Your task to perform on an android device: check android version Image 0: 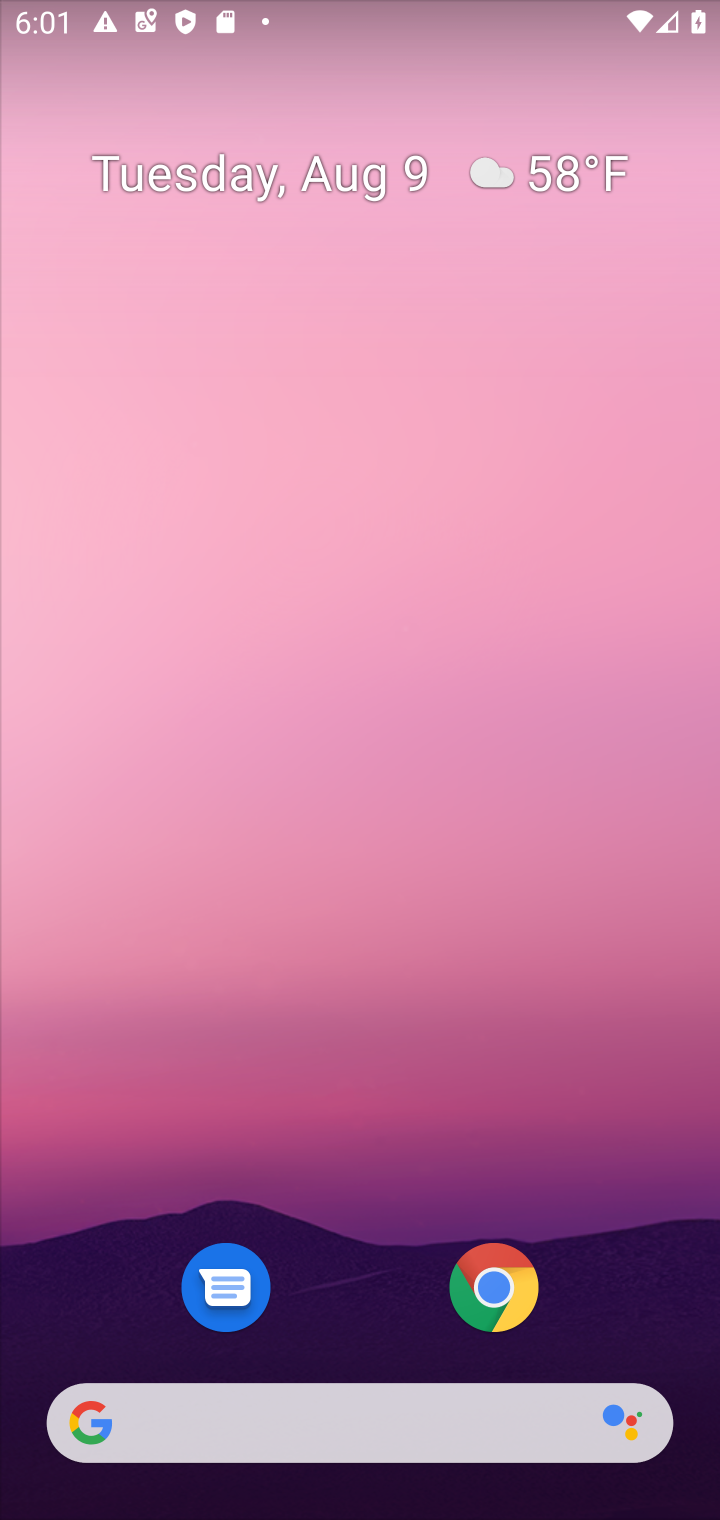
Step 0: click (376, 1448)
Your task to perform on an android device: check android version Image 1: 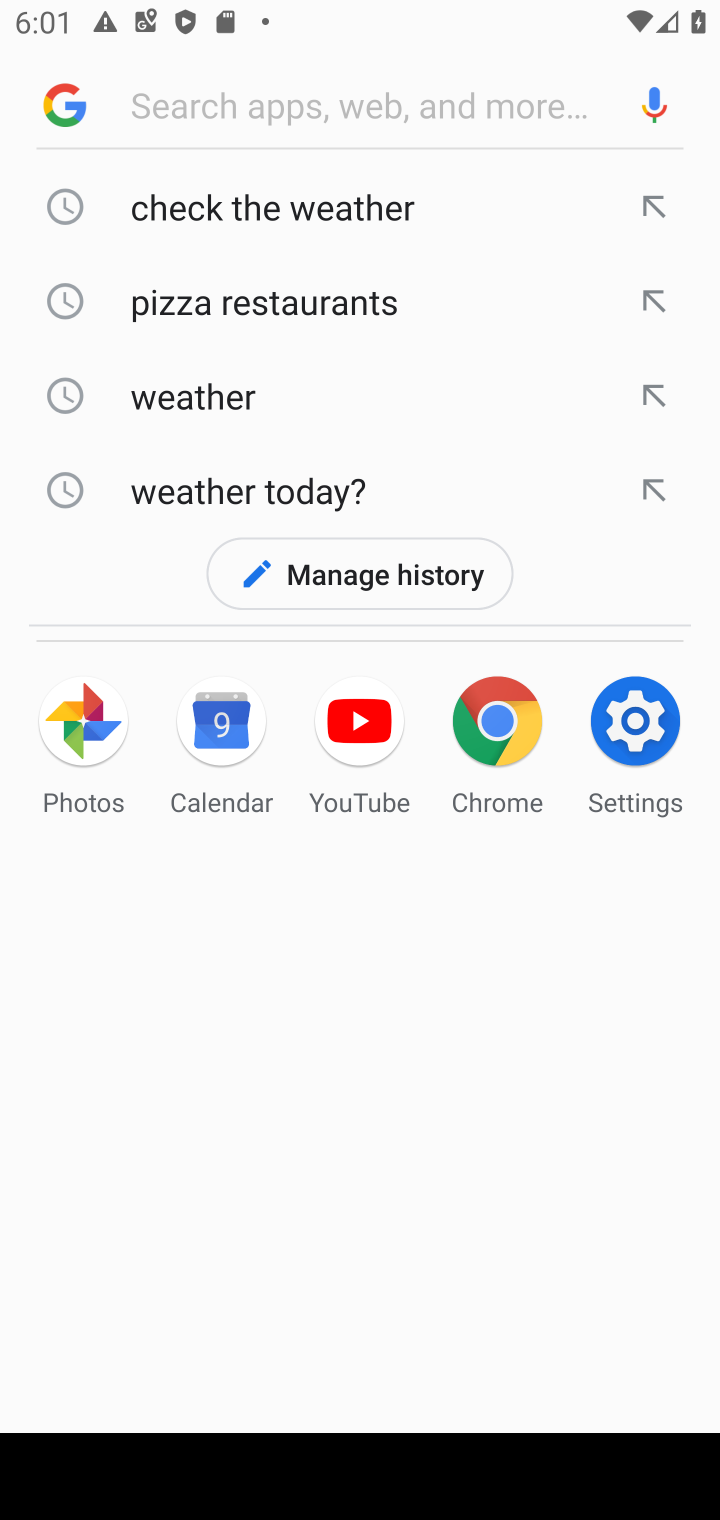
Step 1: click (61, 102)
Your task to perform on an android device: check android version Image 2: 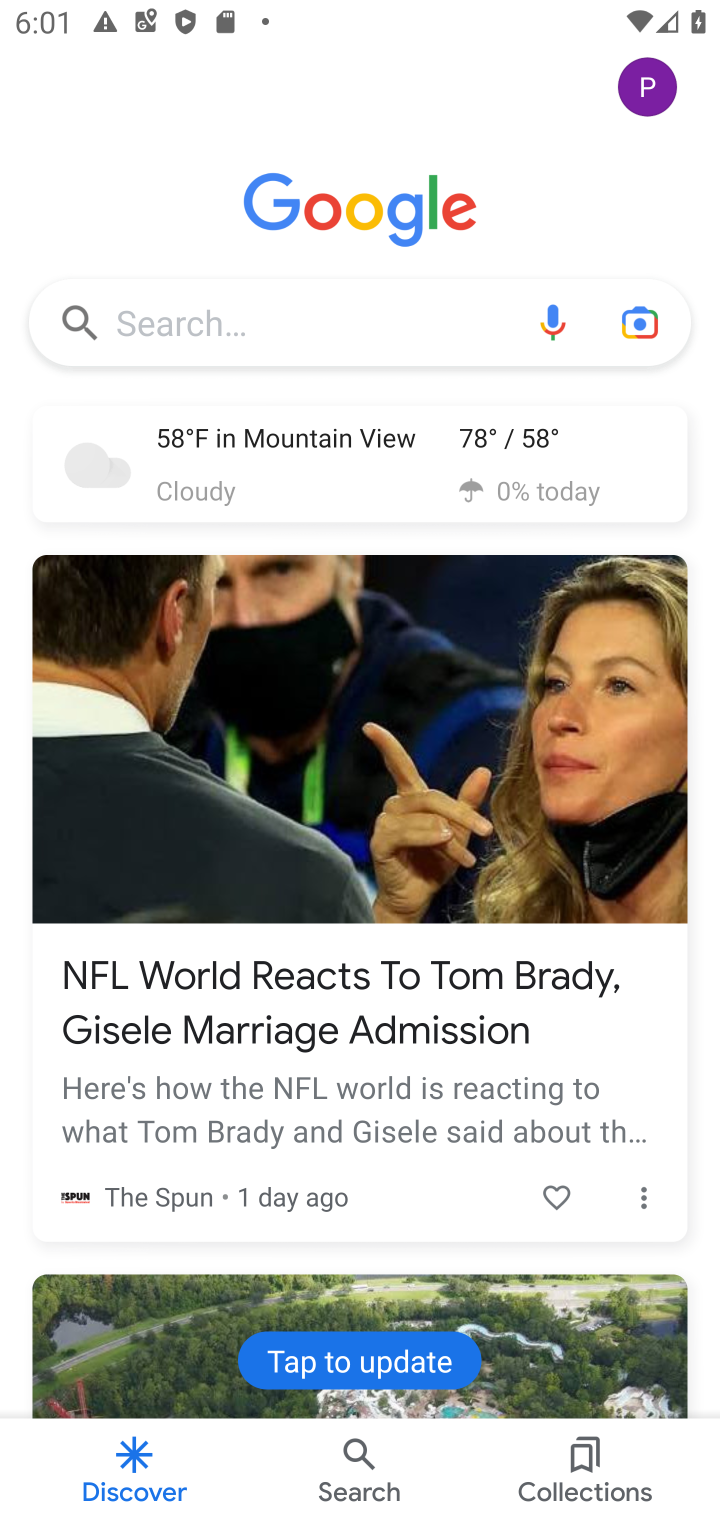
Step 2: click (657, 101)
Your task to perform on an android device: check android version Image 3: 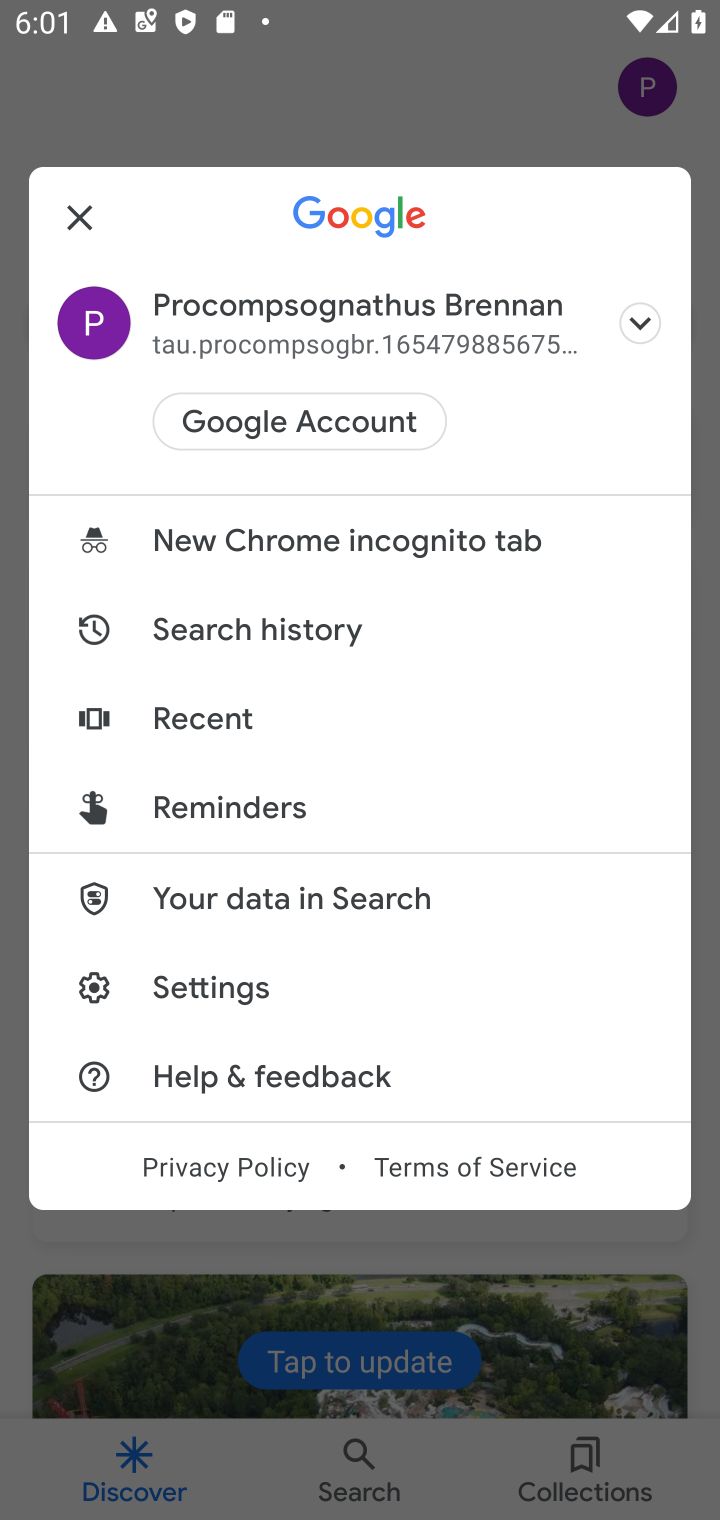
Step 3: click (230, 998)
Your task to perform on an android device: check android version Image 4: 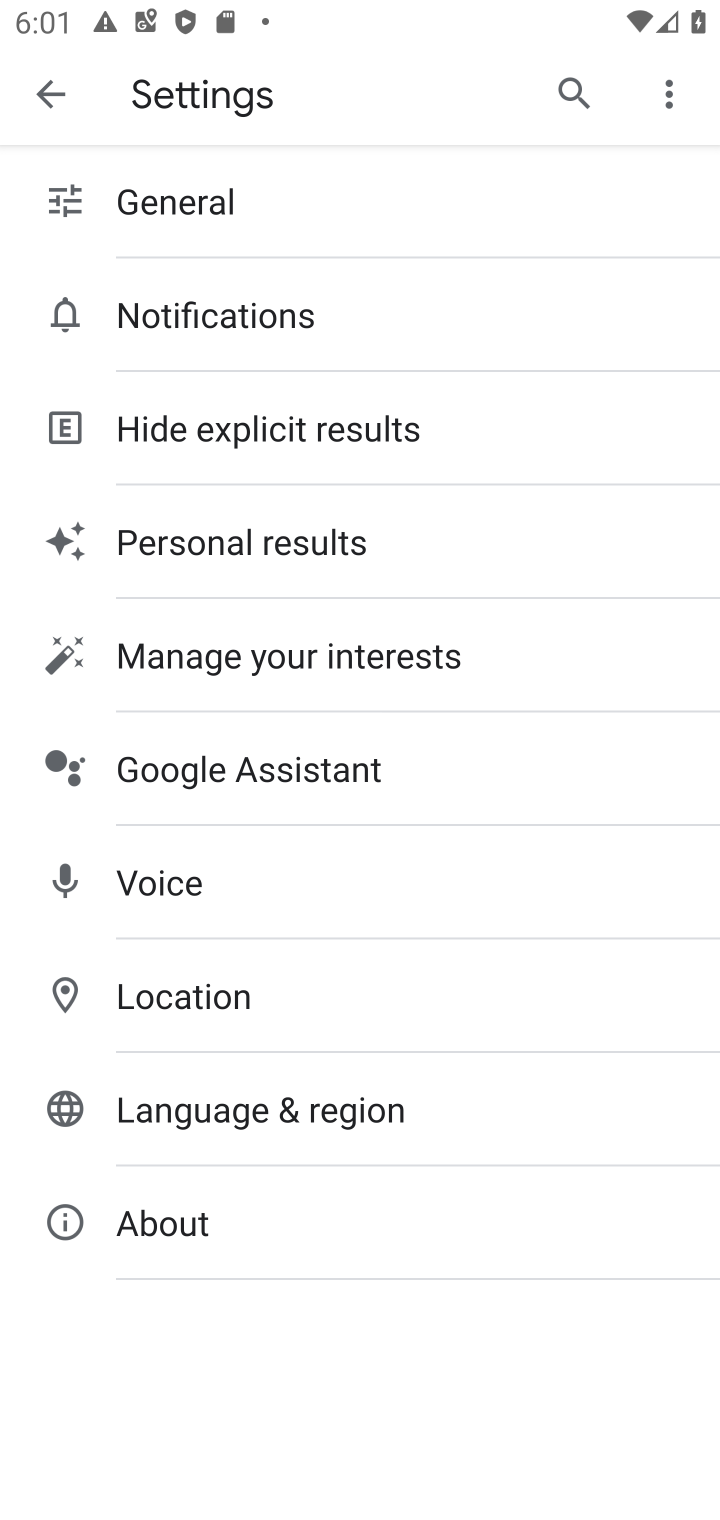
Step 4: click (233, 1204)
Your task to perform on an android device: check android version Image 5: 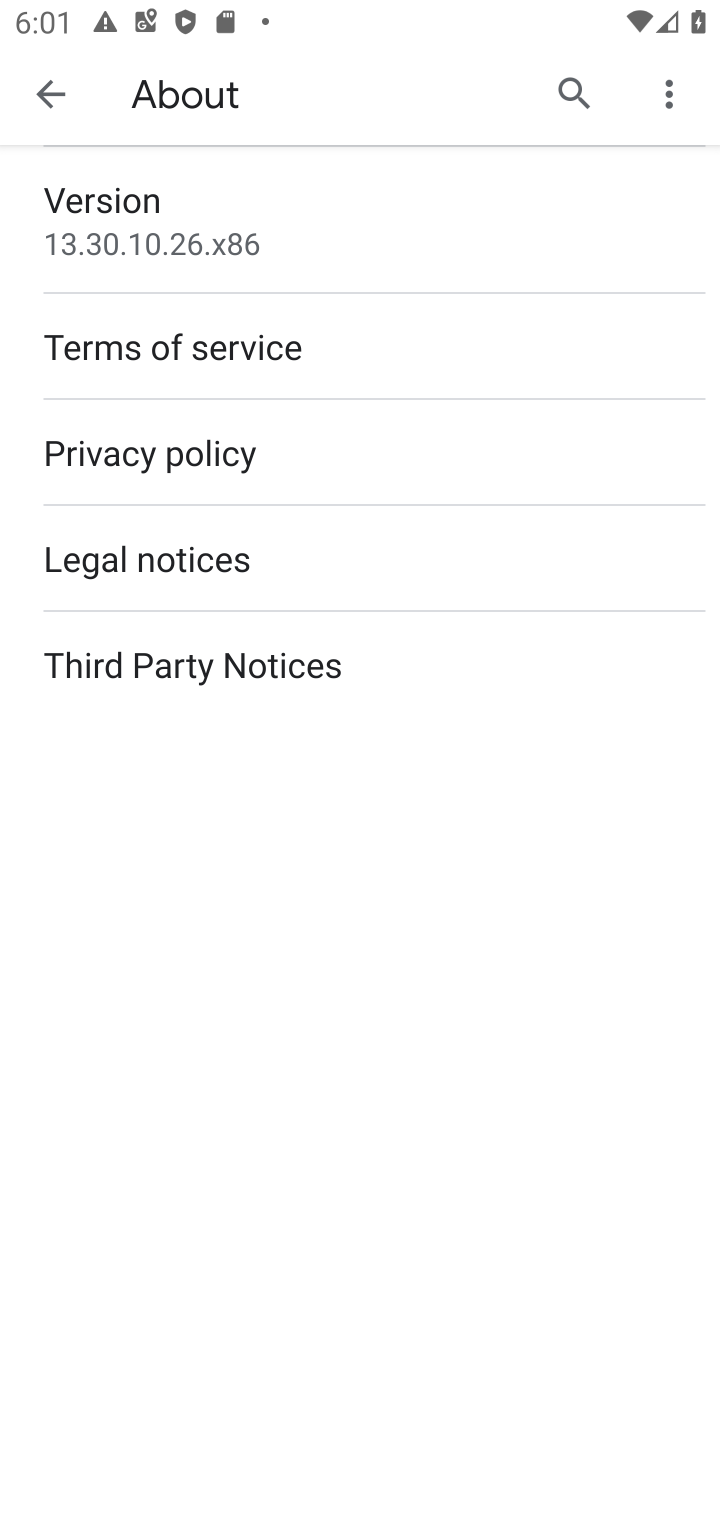
Step 5: task complete